Your task to perform on an android device: Open Maps and search for coffee Image 0: 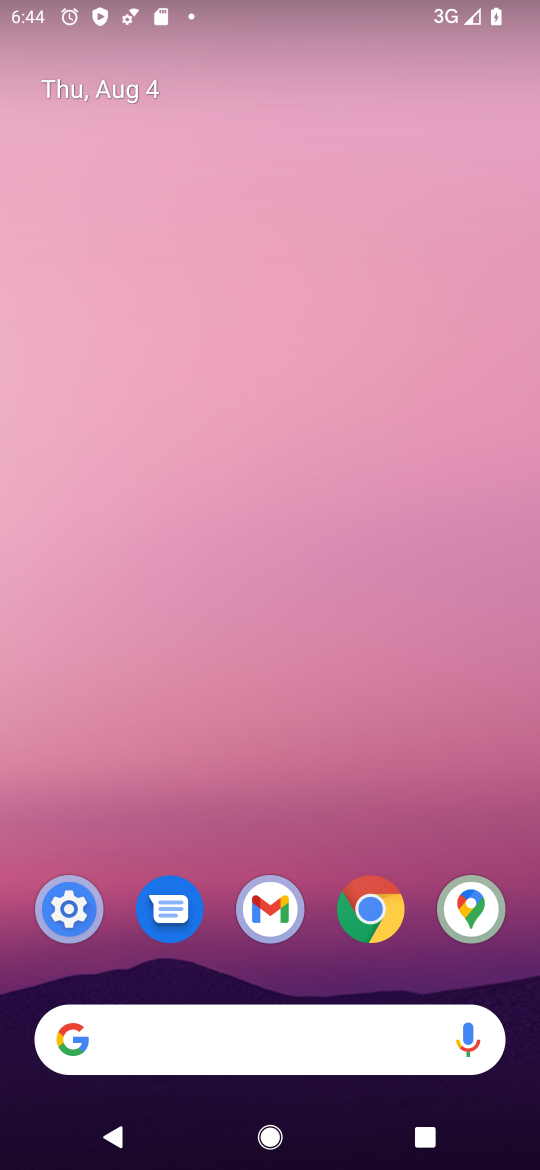
Step 0: drag from (128, 715) to (150, 186)
Your task to perform on an android device: Open Maps and search for coffee Image 1: 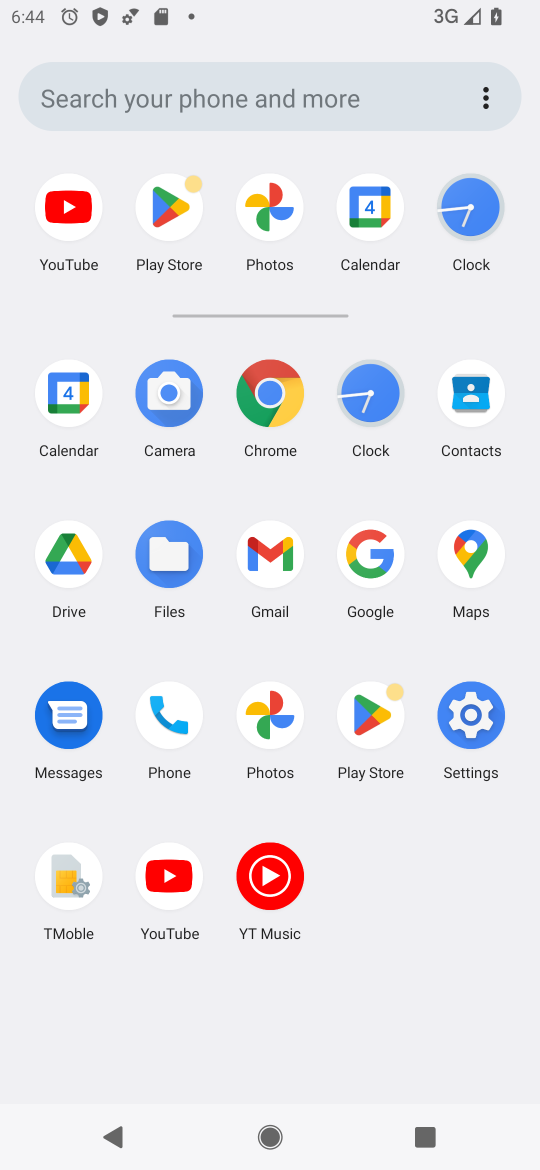
Step 1: click (456, 548)
Your task to perform on an android device: Open Maps and search for coffee Image 2: 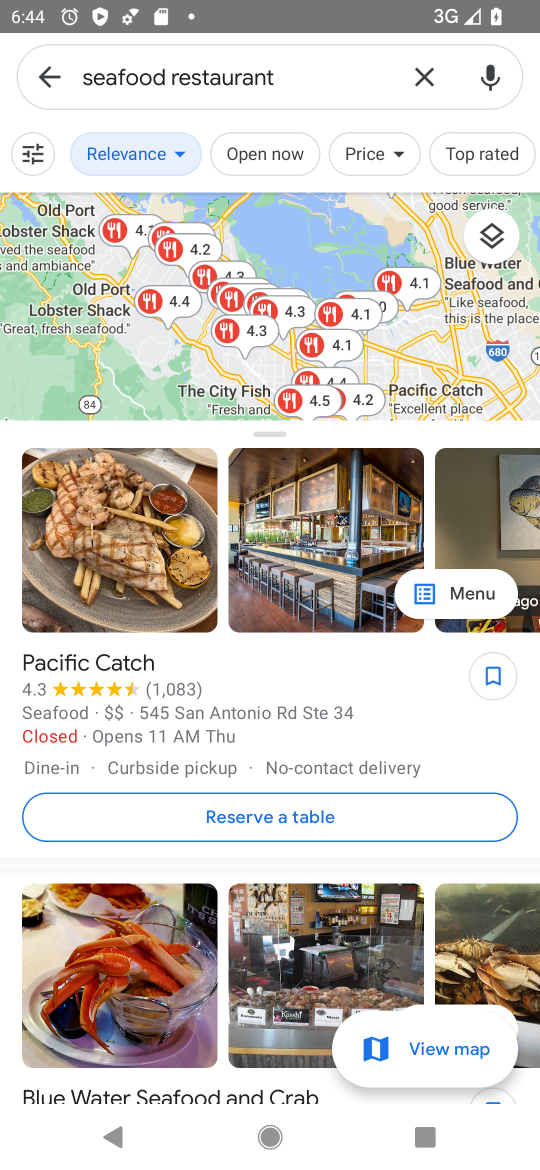
Step 2: click (421, 76)
Your task to perform on an android device: Open Maps and search for coffee Image 3: 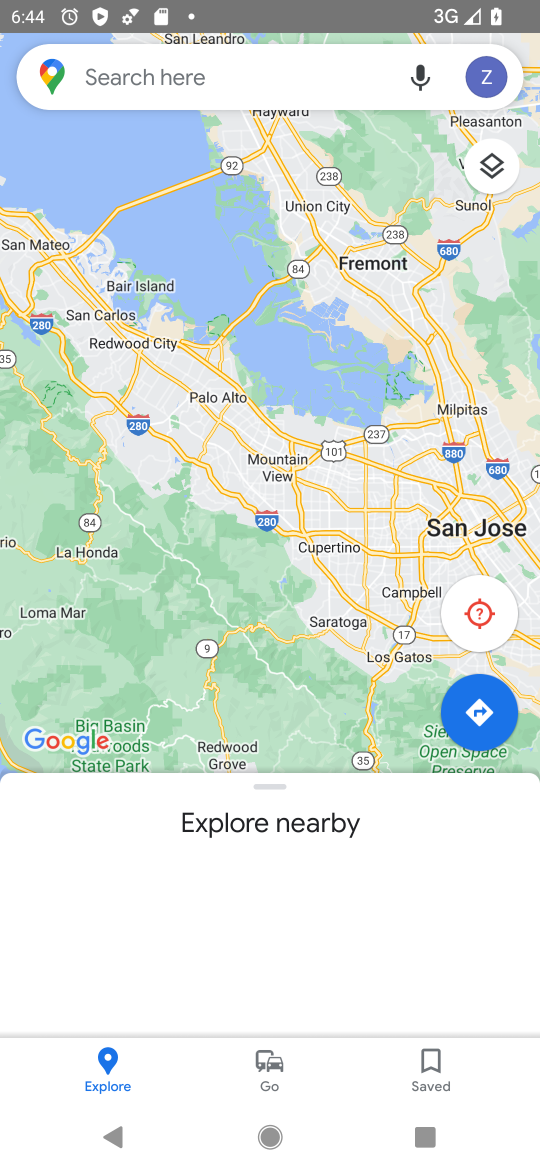
Step 3: type "coffee"
Your task to perform on an android device: Open Maps and search for coffee Image 4: 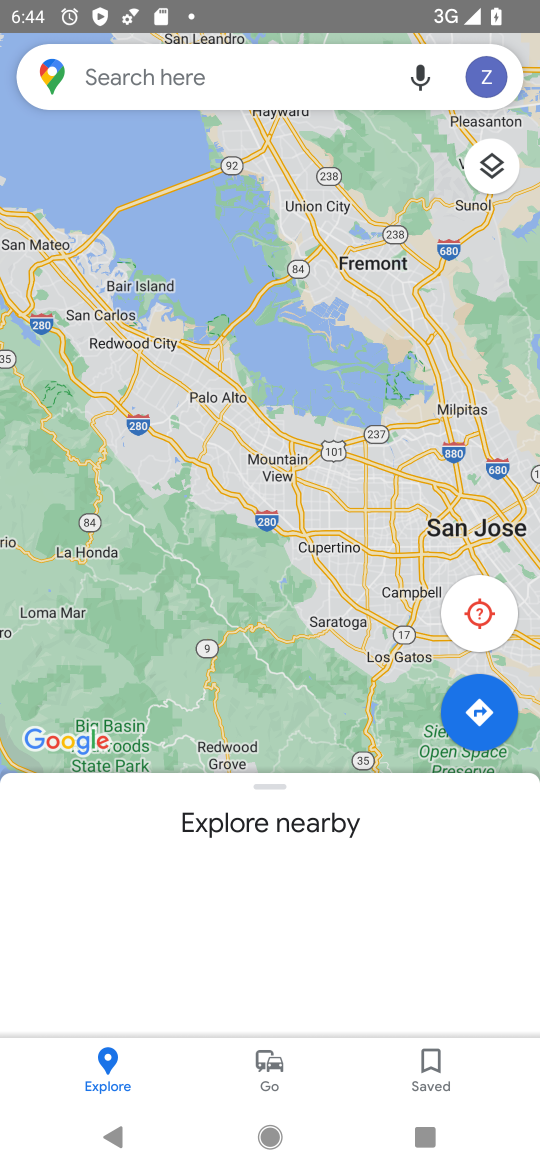
Step 4: click (168, 105)
Your task to perform on an android device: Open Maps and search for coffee Image 5: 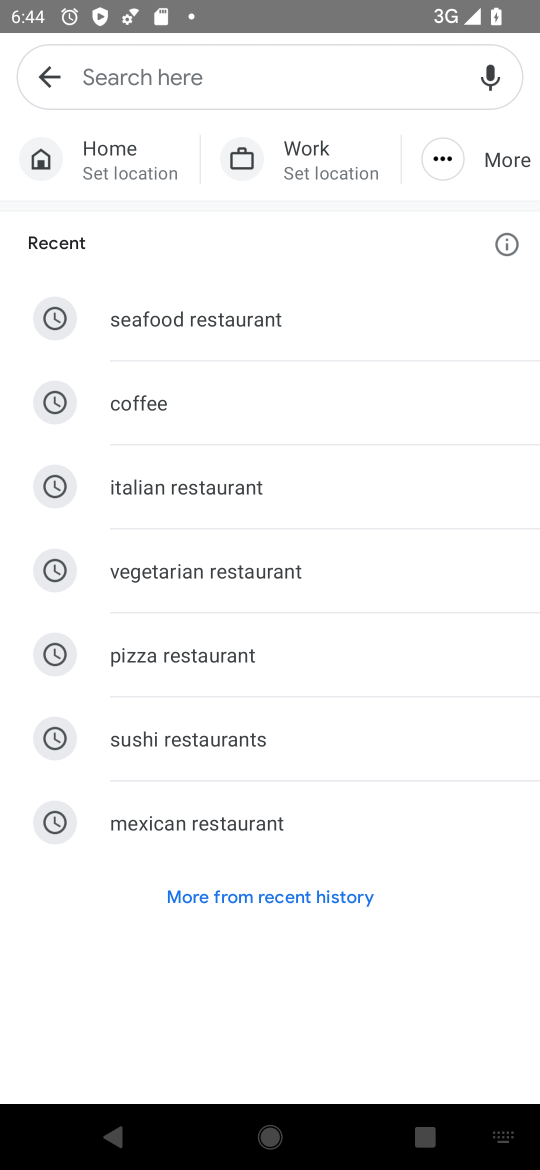
Step 5: click (148, 401)
Your task to perform on an android device: Open Maps and search for coffee Image 6: 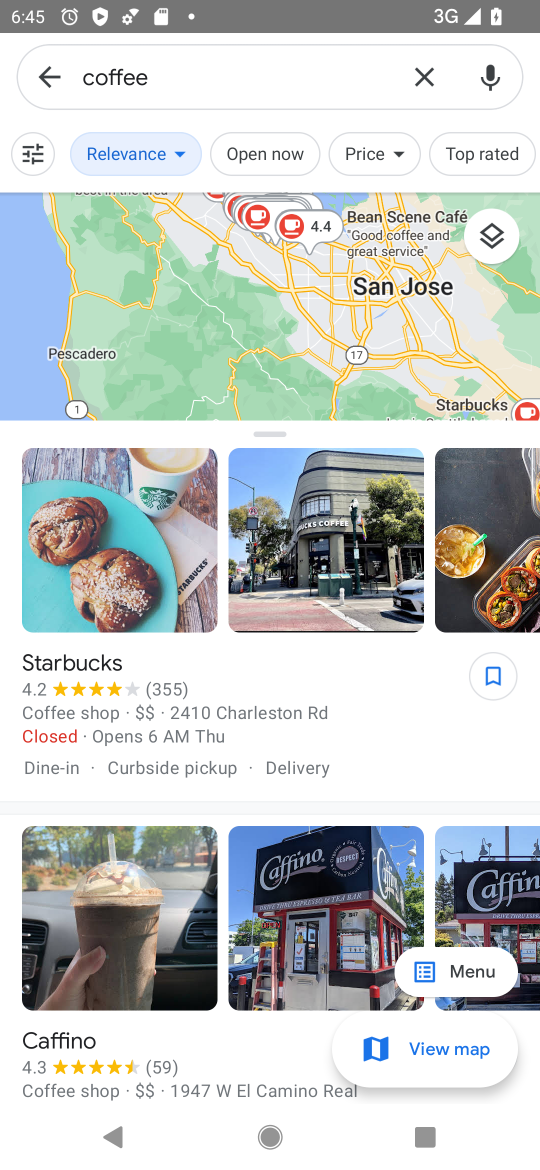
Step 6: task complete